Your task to perform on an android device: Open ESPN.com Image 0: 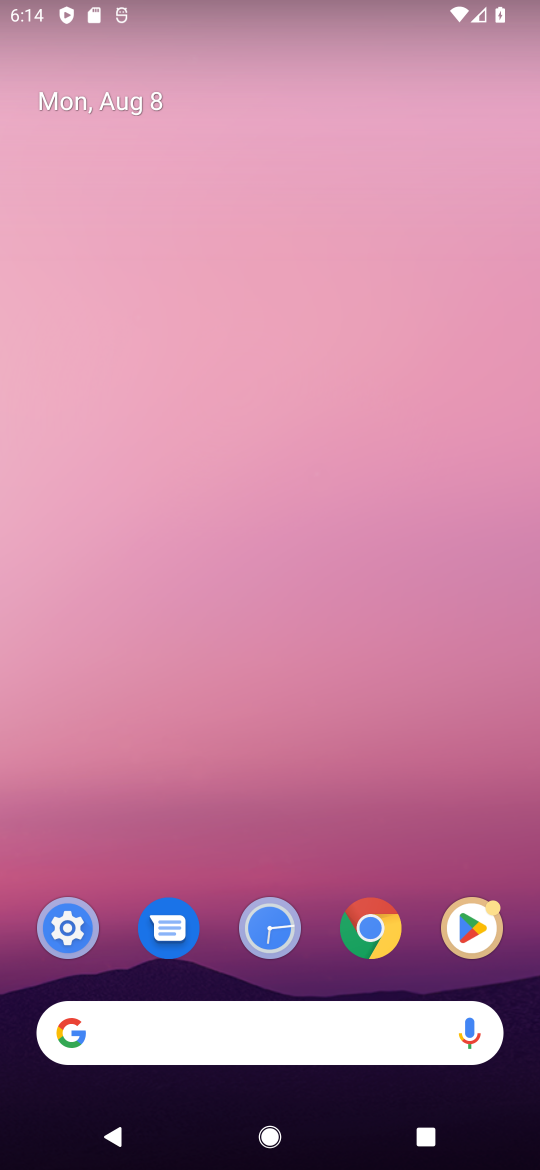
Step 0: click (368, 913)
Your task to perform on an android device: Open ESPN.com Image 1: 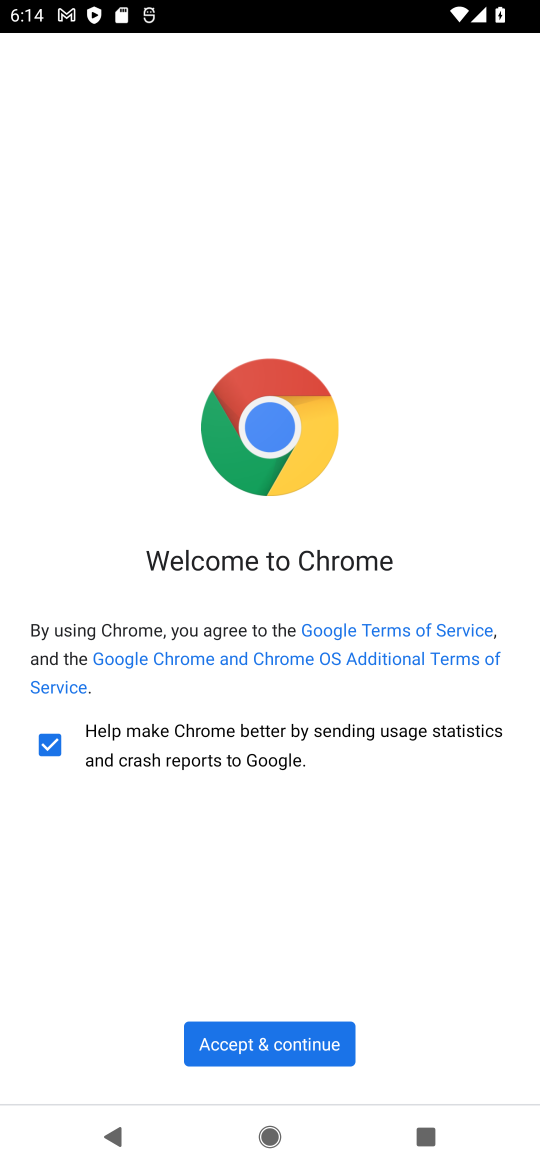
Step 1: click (284, 1033)
Your task to perform on an android device: Open ESPN.com Image 2: 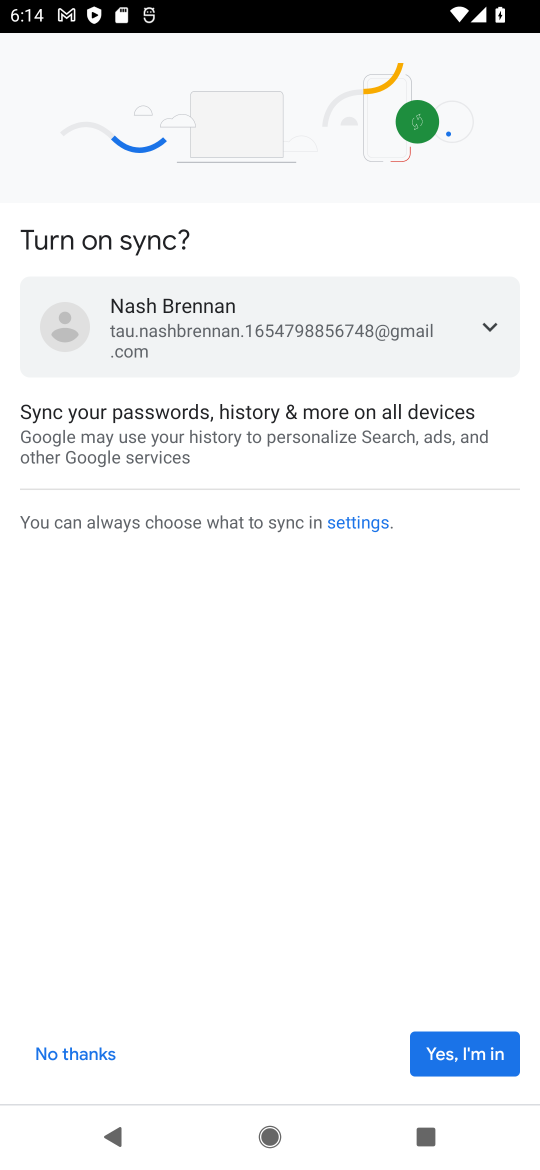
Step 2: click (457, 1047)
Your task to perform on an android device: Open ESPN.com Image 3: 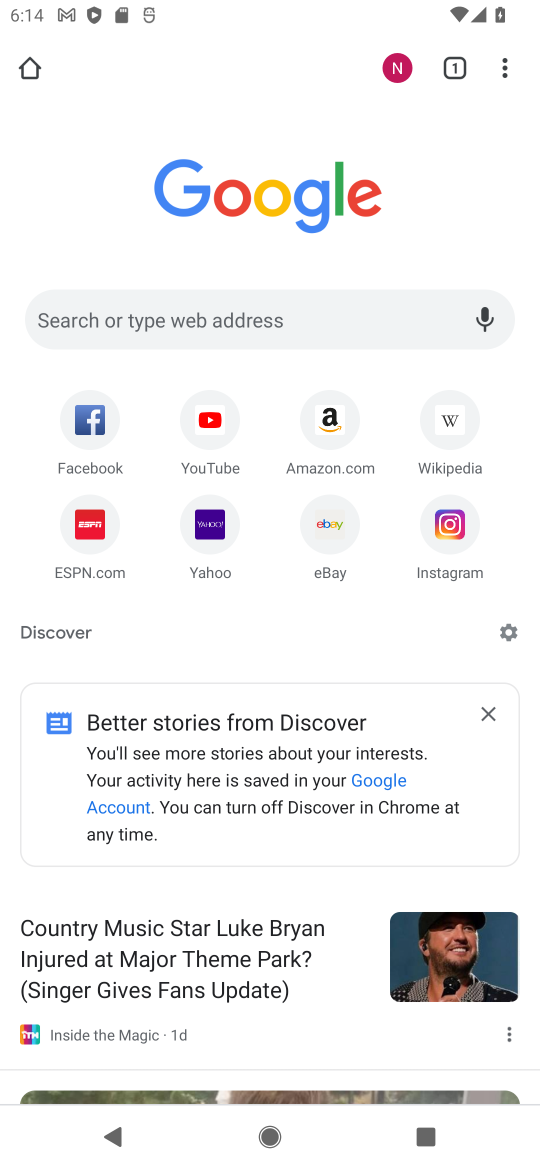
Step 3: click (99, 552)
Your task to perform on an android device: Open ESPN.com Image 4: 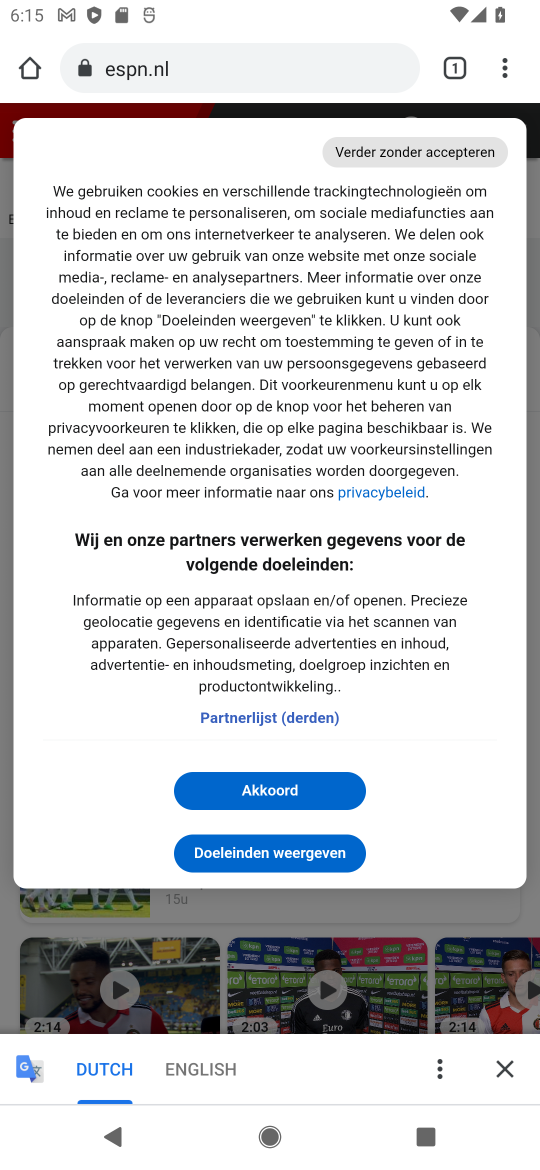
Step 4: click (284, 793)
Your task to perform on an android device: Open ESPN.com Image 5: 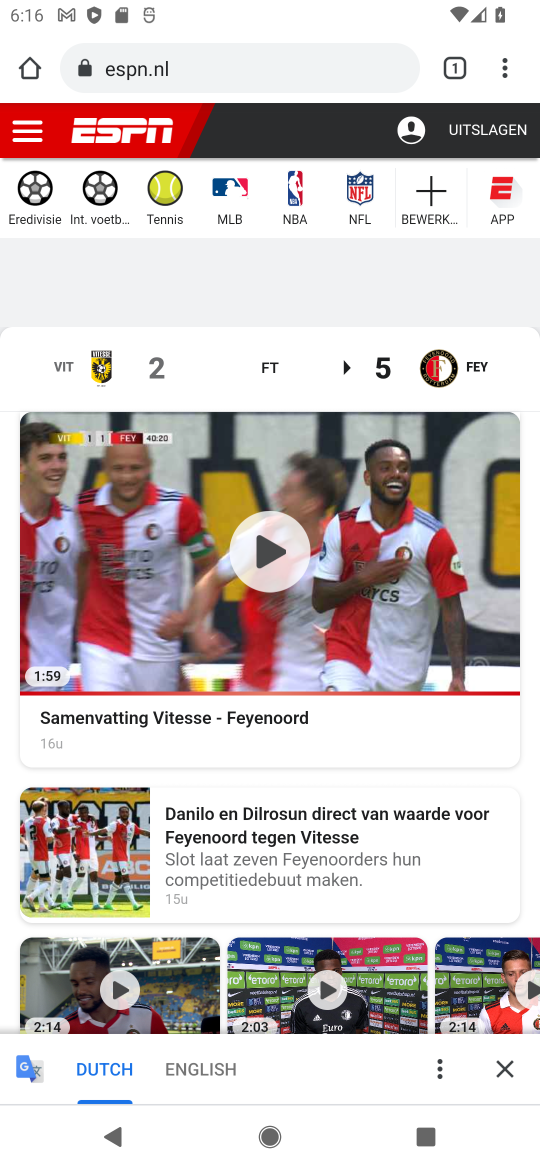
Step 5: task complete